Your task to perform on an android device: Open eBay Image 0: 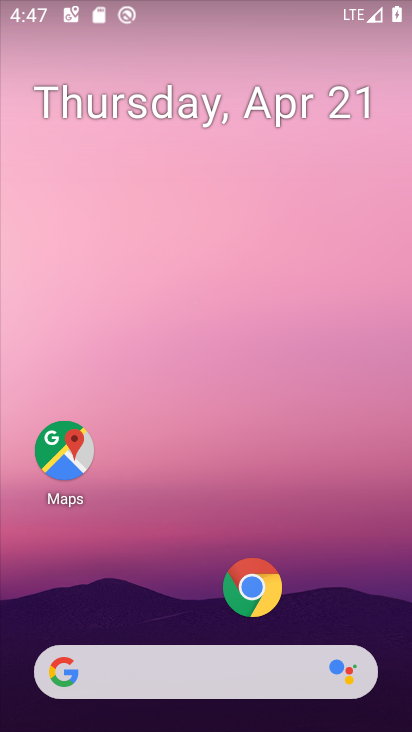
Step 0: click (248, 590)
Your task to perform on an android device: Open eBay Image 1: 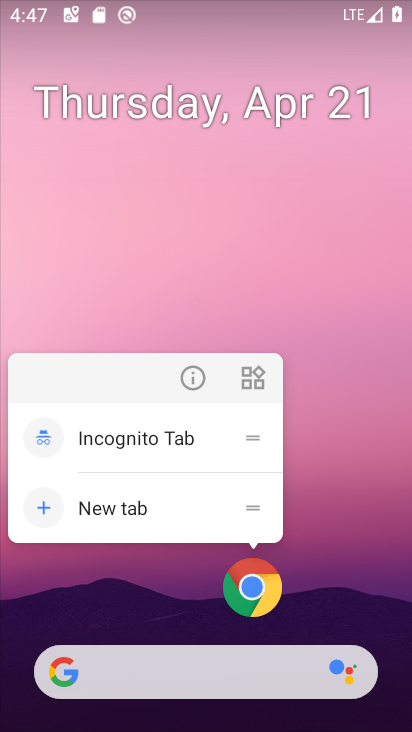
Step 1: click (248, 590)
Your task to perform on an android device: Open eBay Image 2: 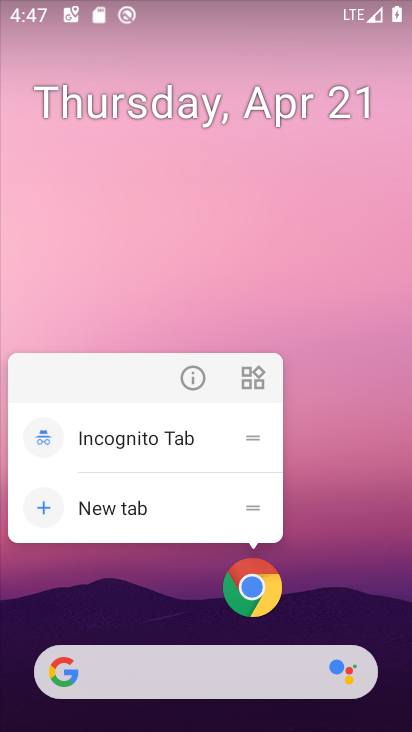
Step 2: click (265, 582)
Your task to perform on an android device: Open eBay Image 3: 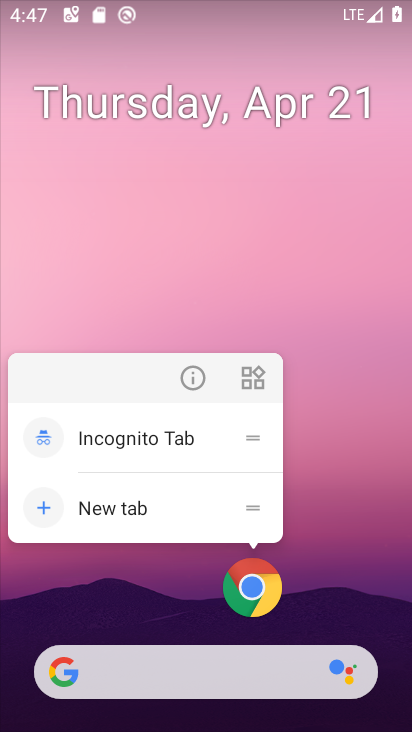
Step 3: click (252, 598)
Your task to perform on an android device: Open eBay Image 4: 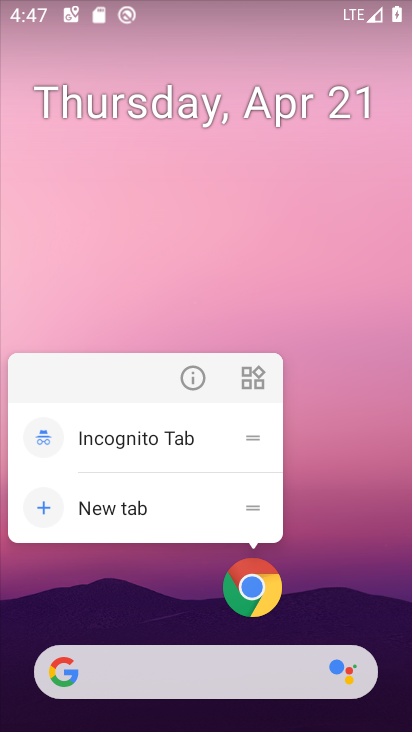
Step 4: click (254, 589)
Your task to perform on an android device: Open eBay Image 5: 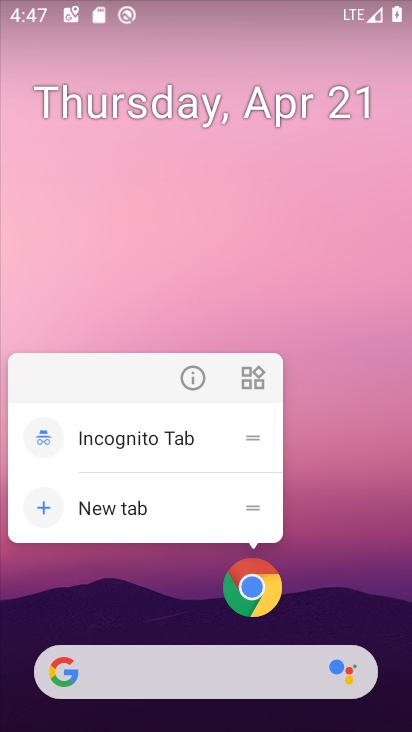
Step 5: click (247, 572)
Your task to perform on an android device: Open eBay Image 6: 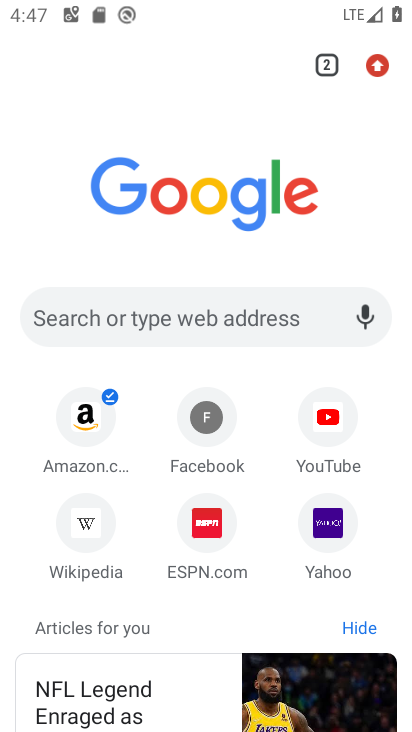
Step 6: click (166, 328)
Your task to perform on an android device: Open eBay Image 7: 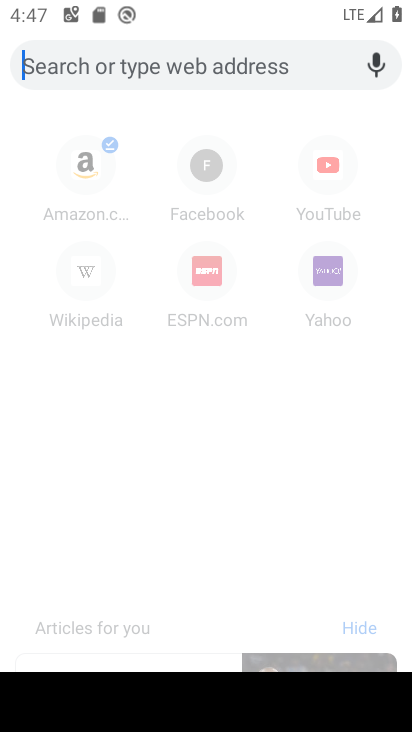
Step 7: type "eBay.com"
Your task to perform on an android device: Open eBay Image 8: 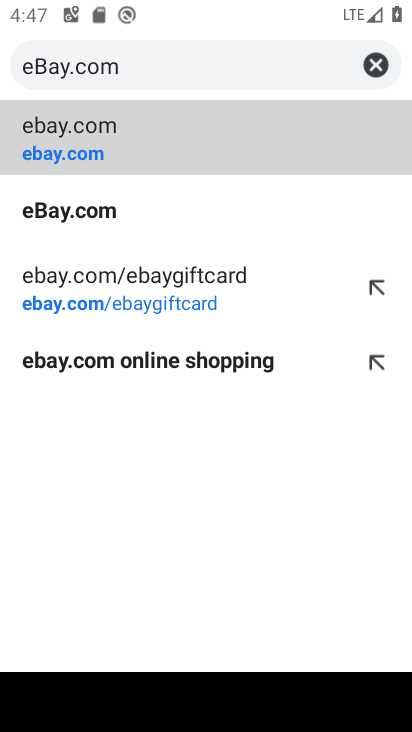
Step 8: click (178, 141)
Your task to perform on an android device: Open eBay Image 9: 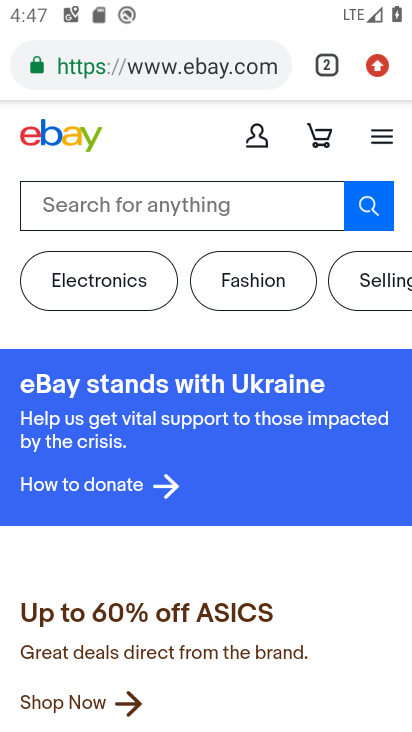
Step 9: drag from (208, 636) to (298, 222)
Your task to perform on an android device: Open eBay Image 10: 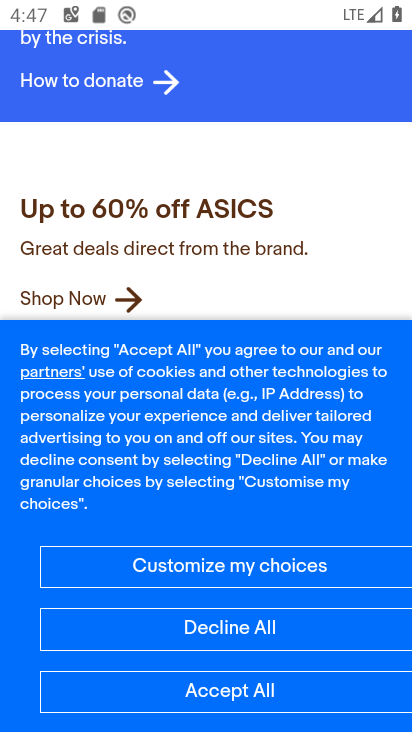
Step 10: click (269, 703)
Your task to perform on an android device: Open eBay Image 11: 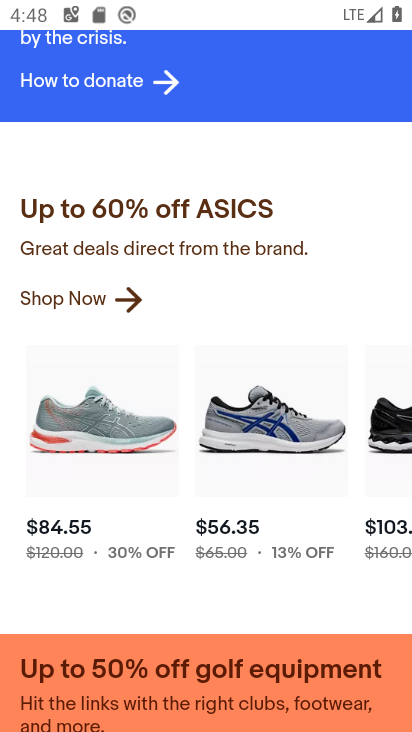
Step 11: task complete